Your task to perform on an android device: Go to Maps Image 0: 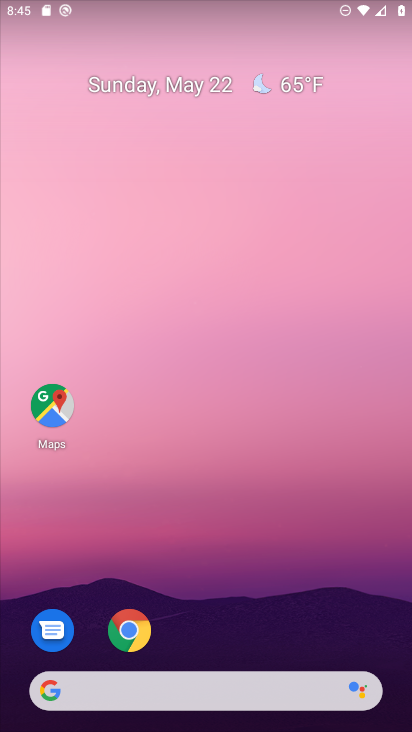
Step 0: press home button
Your task to perform on an android device: Go to Maps Image 1: 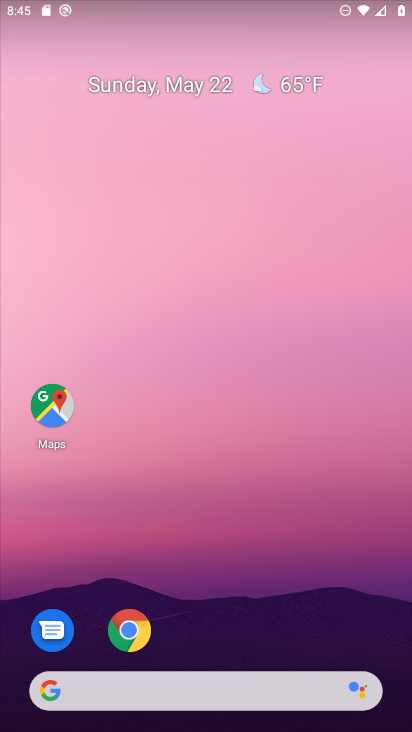
Step 1: click (56, 404)
Your task to perform on an android device: Go to Maps Image 2: 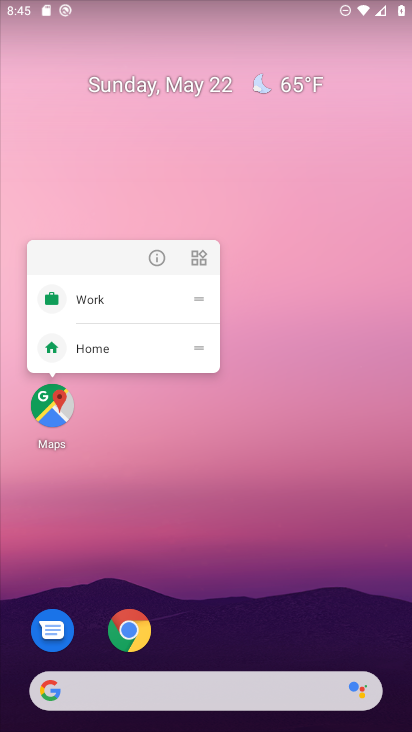
Step 2: click (51, 412)
Your task to perform on an android device: Go to Maps Image 3: 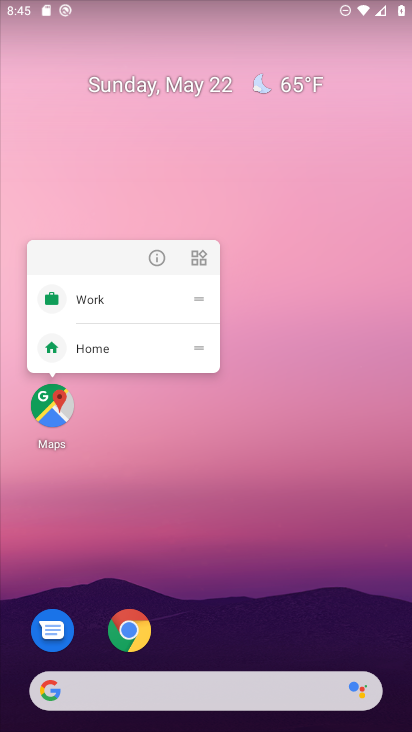
Step 3: click (57, 413)
Your task to perform on an android device: Go to Maps Image 4: 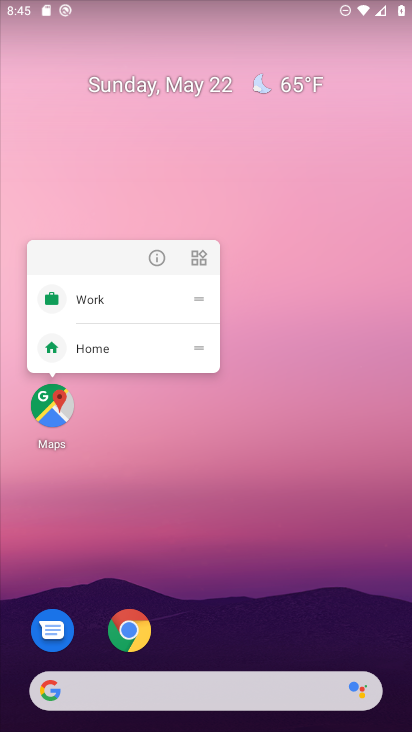
Step 4: click (47, 423)
Your task to perform on an android device: Go to Maps Image 5: 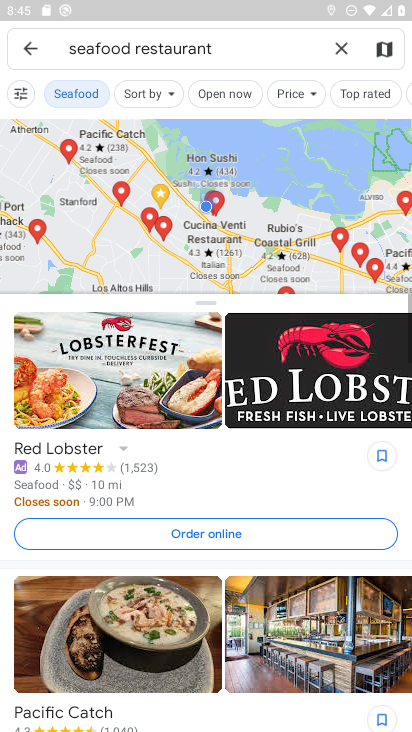
Step 5: click (29, 49)
Your task to perform on an android device: Go to Maps Image 6: 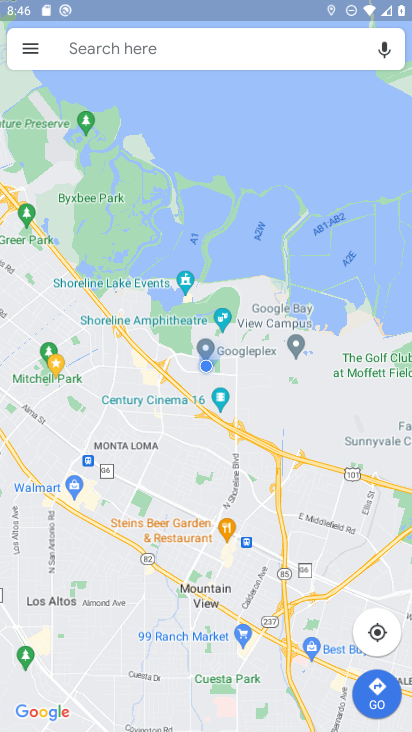
Step 6: task complete